Your task to perform on an android device: Open the Play Movies app and select the watchlist tab. Image 0: 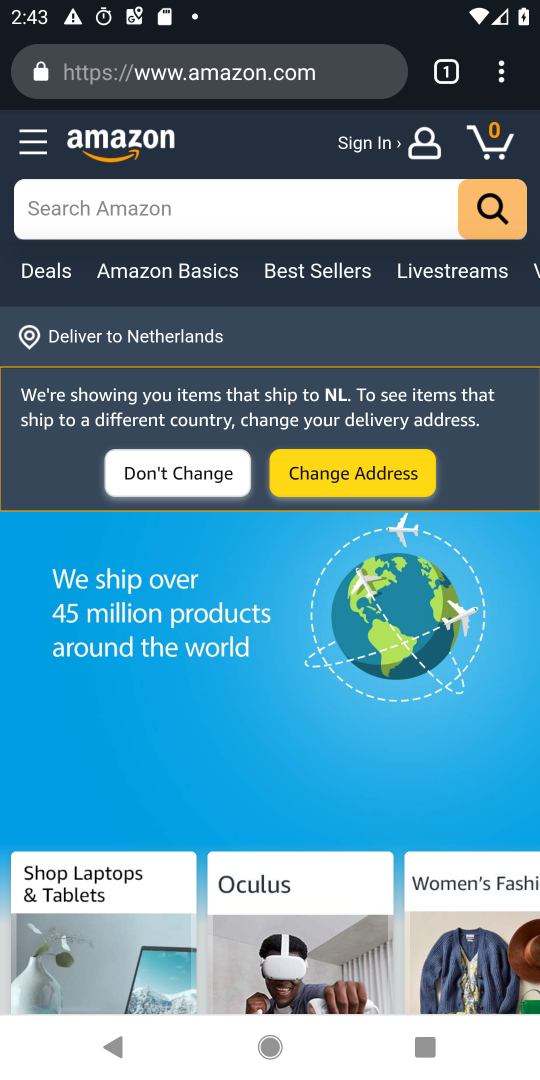
Step 0: press home button
Your task to perform on an android device: Open the Play Movies app and select the watchlist tab. Image 1: 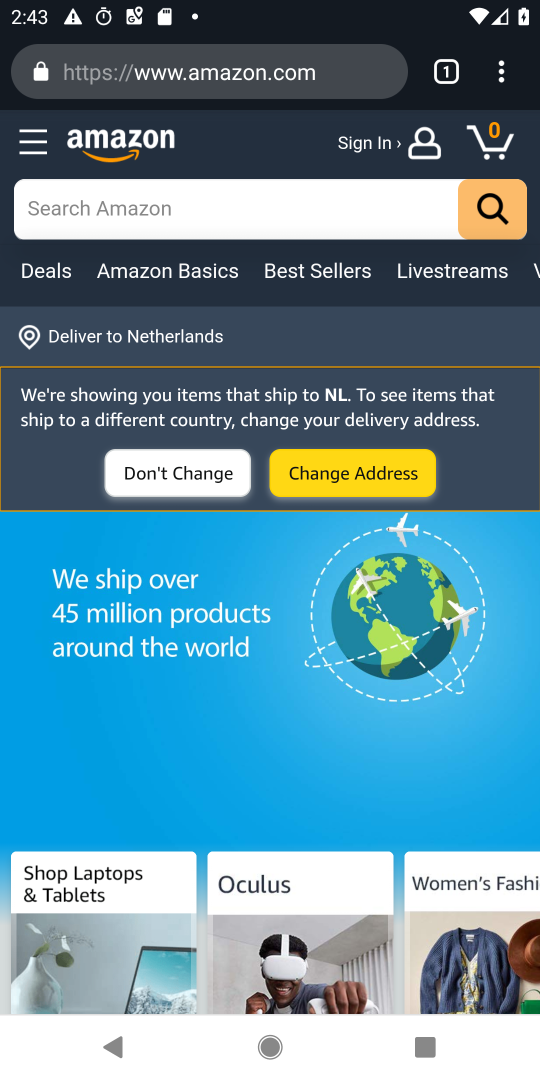
Step 1: drag from (492, 996) to (99, 0)
Your task to perform on an android device: Open the Play Movies app and select the watchlist tab. Image 2: 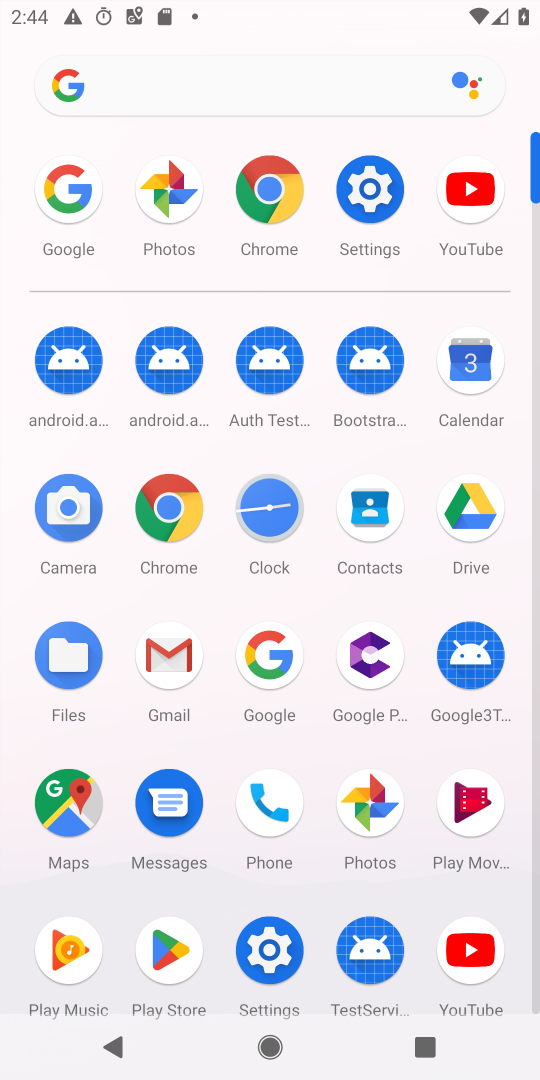
Step 2: click (477, 811)
Your task to perform on an android device: Open the Play Movies app and select the watchlist tab. Image 3: 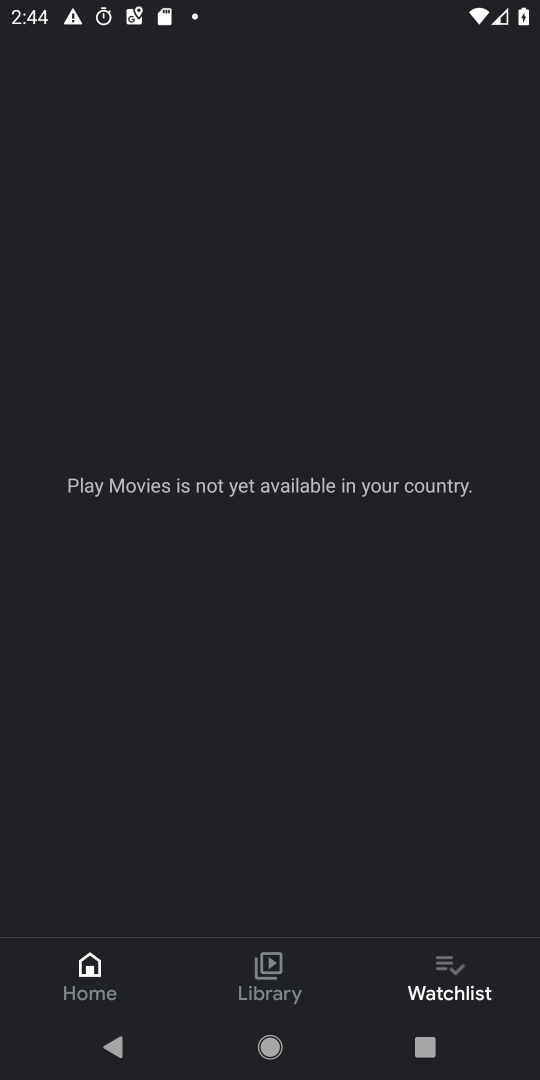
Step 3: click (463, 976)
Your task to perform on an android device: Open the Play Movies app and select the watchlist tab. Image 4: 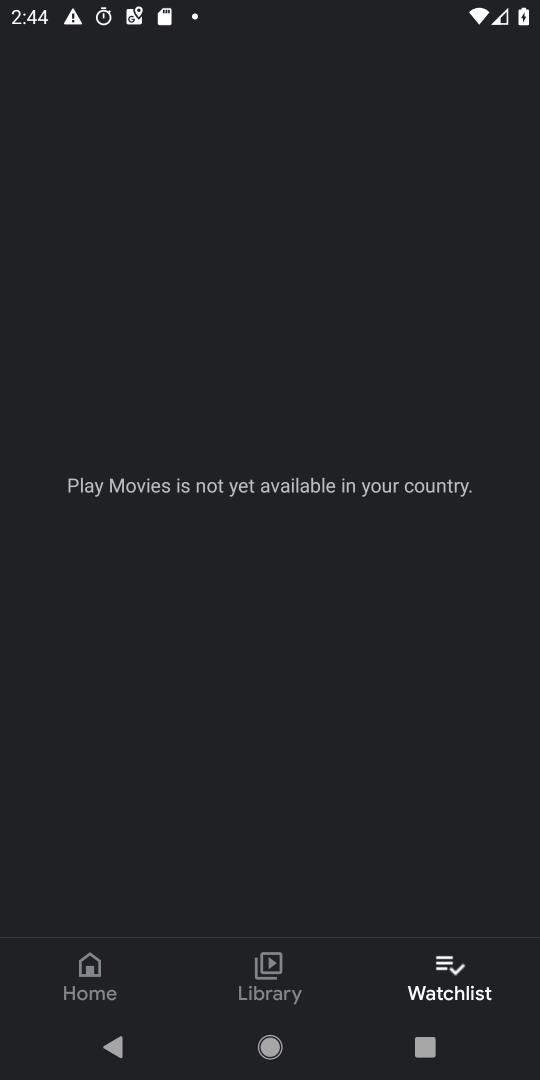
Step 4: task complete